Your task to perform on an android device: Open CNN.com Image 0: 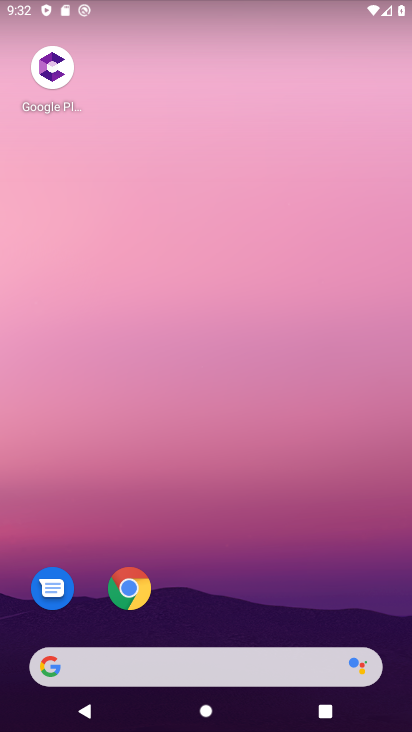
Step 0: click (135, 664)
Your task to perform on an android device: Open CNN.com Image 1: 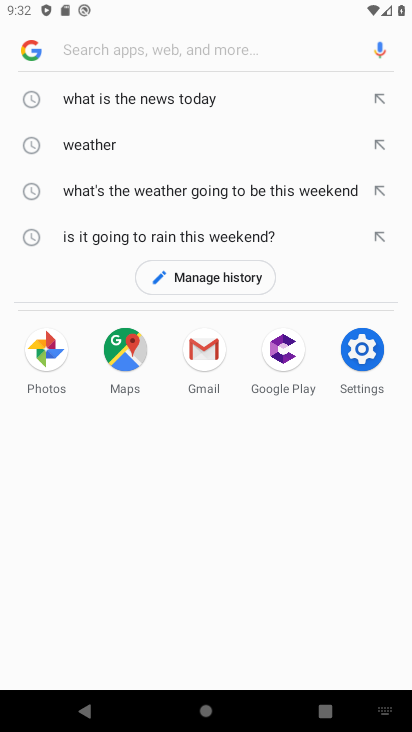
Step 1: type "CNN.com"
Your task to perform on an android device: Open CNN.com Image 2: 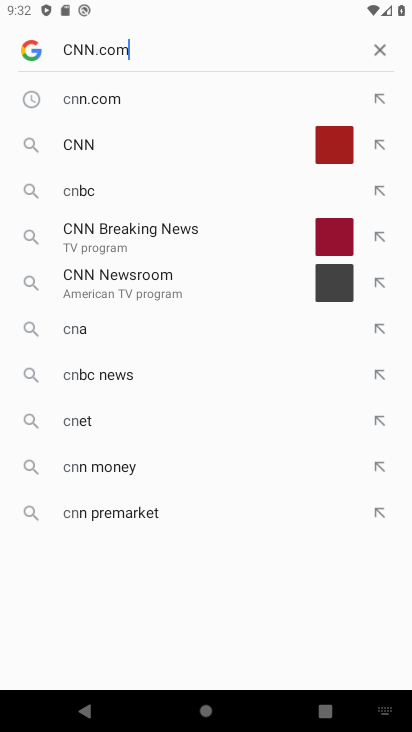
Step 2: type ""
Your task to perform on an android device: Open CNN.com Image 3: 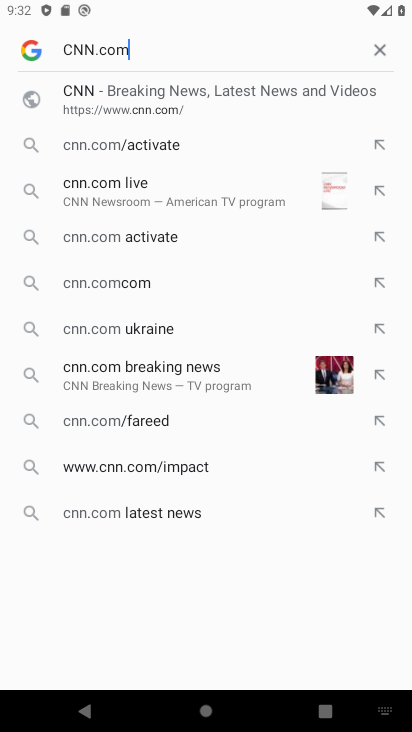
Step 3: type ""
Your task to perform on an android device: Open CNN.com Image 4: 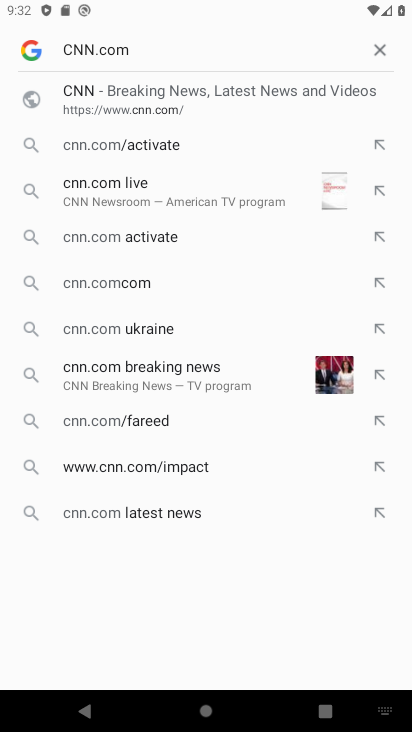
Step 4: type ""
Your task to perform on an android device: Open CNN.com Image 5: 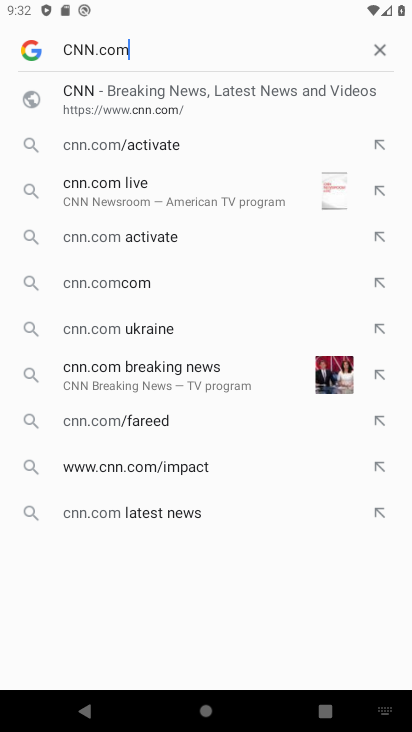
Step 5: type ""
Your task to perform on an android device: Open CNN.com Image 6: 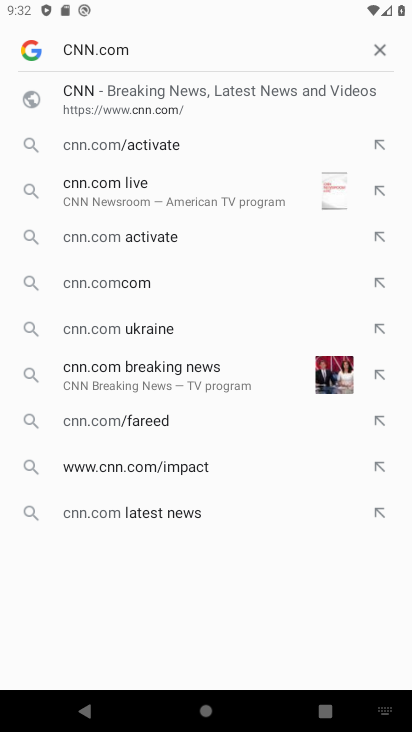
Step 6: task complete